Your task to perform on an android device: Open calendar and show me the fourth week of next month Image 0: 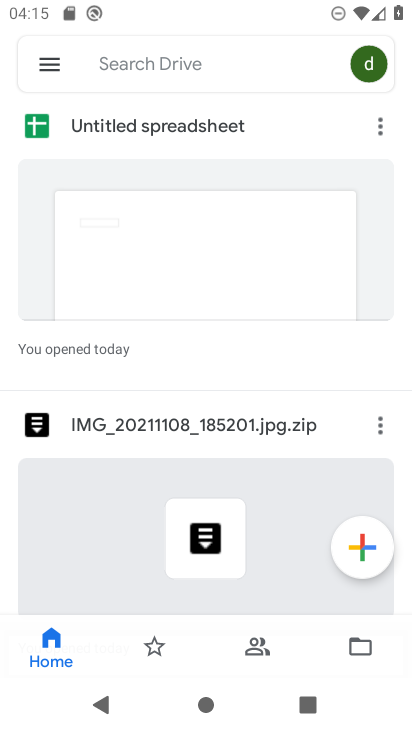
Step 0: press home button
Your task to perform on an android device: Open calendar and show me the fourth week of next month Image 1: 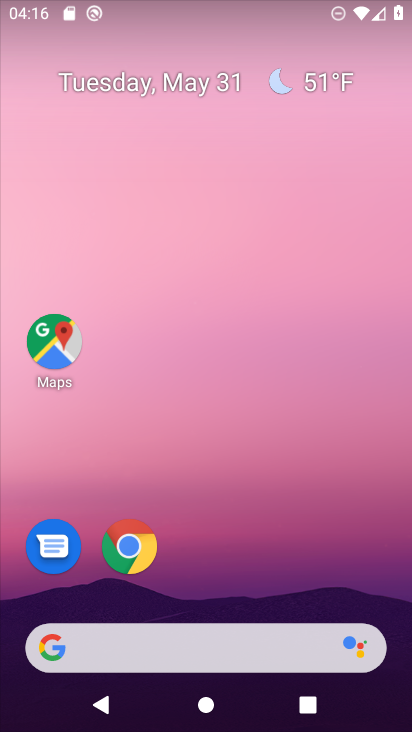
Step 1: drag from (243, 601) to (282, 346)
Your task to perform on an android device: Open calendar and show me the fourth week of next month Image 2: 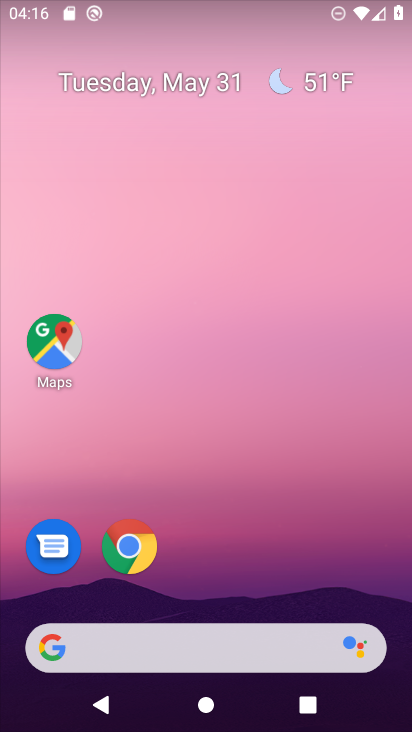
Step 2: drag from (171, 590) to (131, 254)
Your task to perform on an android device: Open calendar and show me the fourth week of next month Image 3: 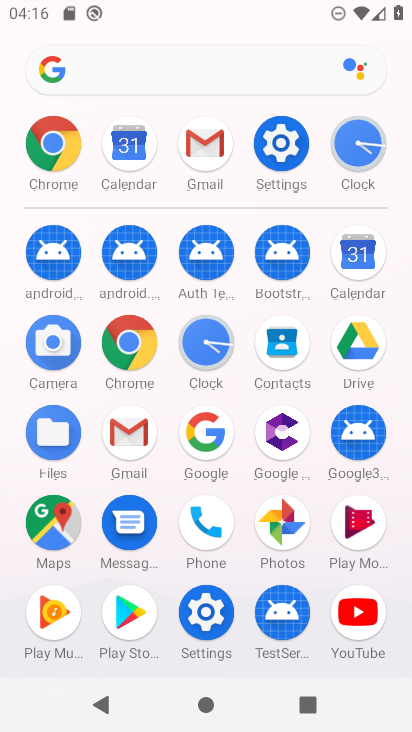
Step 3: click (354, 270)
Your task to perform on an android device: Open calendar and show me the fourth week of next month Image 4: 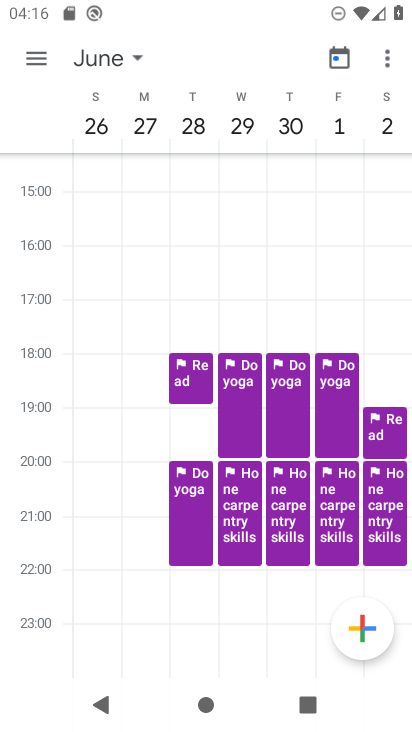
Step 4: click (89, 59)
Your task to perform on an android device: Open calendar and show me the fourth week of next month Image 5: 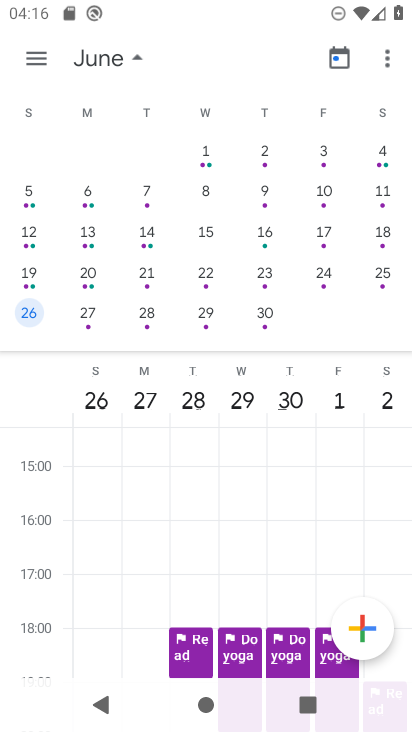
Step 5: task complete